Your task to perform on an android device: Is it going to rain today? Image 0: 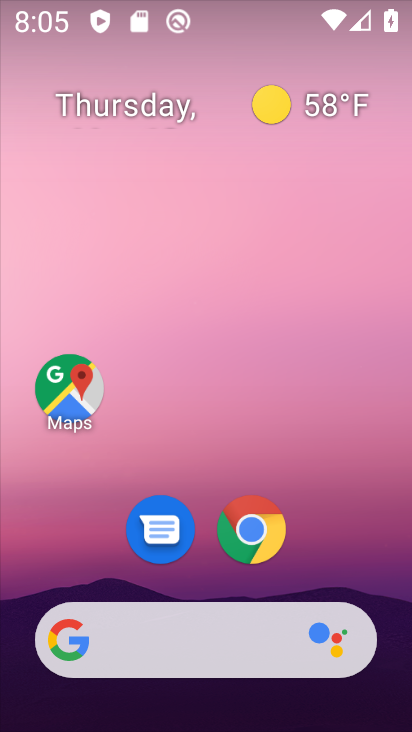
Step 0: drag from (197, 577) to (241, 90)
Your task to perform on an android device: Is it going to rain today? Image 1: 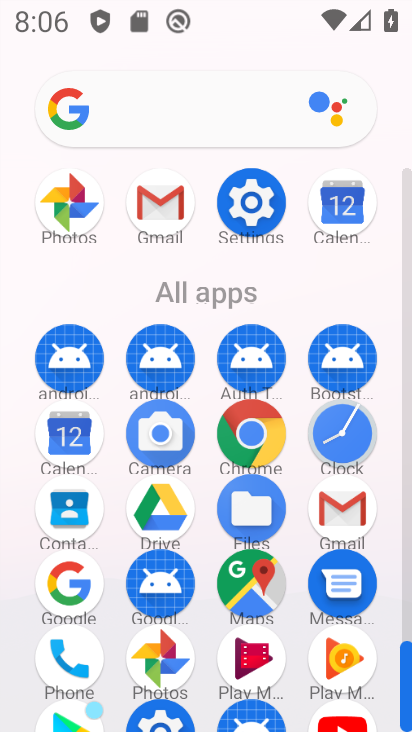
Step 1: click (64, 587)
Your task to perform on an android device: Is it going to rain today? Image 2: 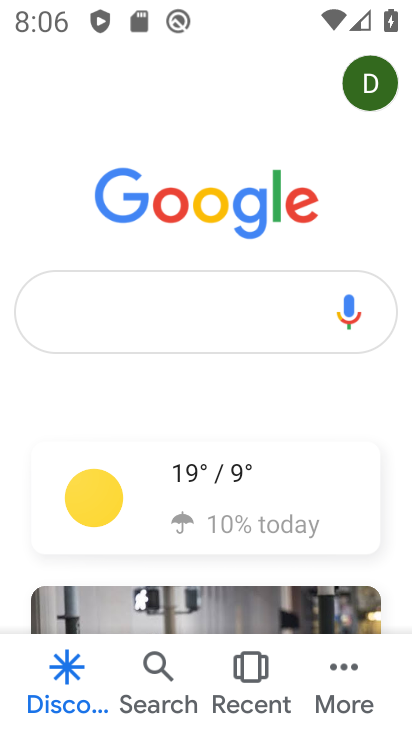
Step 2: type "is it going to rain today"
Your task to perform on an android device: Is it going to rain today? Image 3: 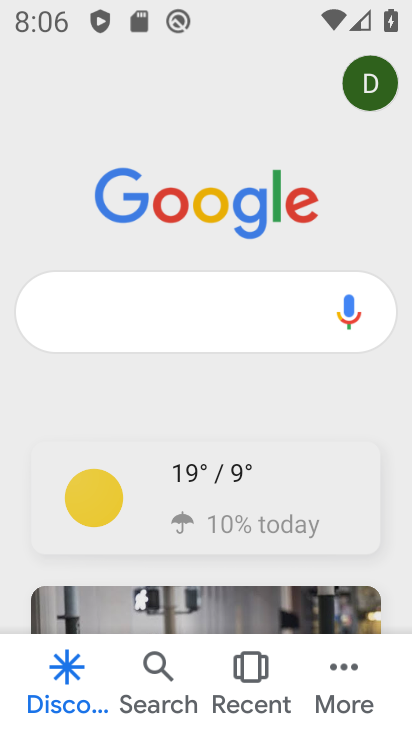
Step 3: click (132, 324)
Your task to perform on an android device: Is it going to rain today? Image 4: 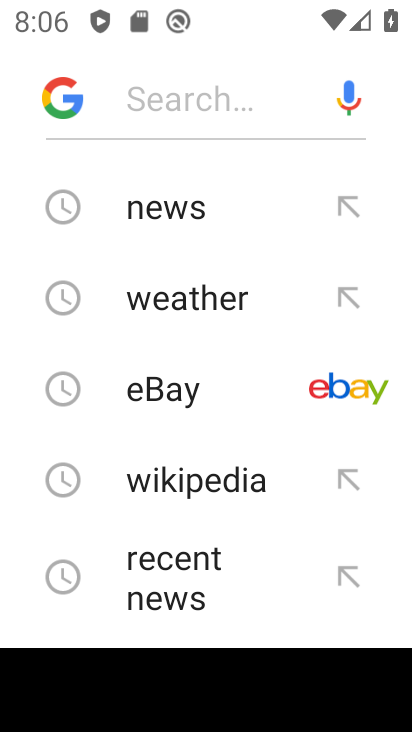
Step 4: type "is it going to rain today"
Your task to perform on an android device: Is it going to rain today? Image 5: 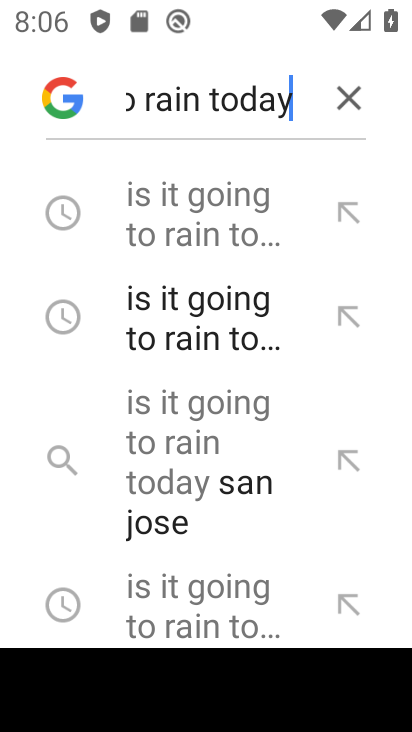
Step 5: click (173, 205)
Your task to perform on an android device: Is it going to rain today? Image 6: 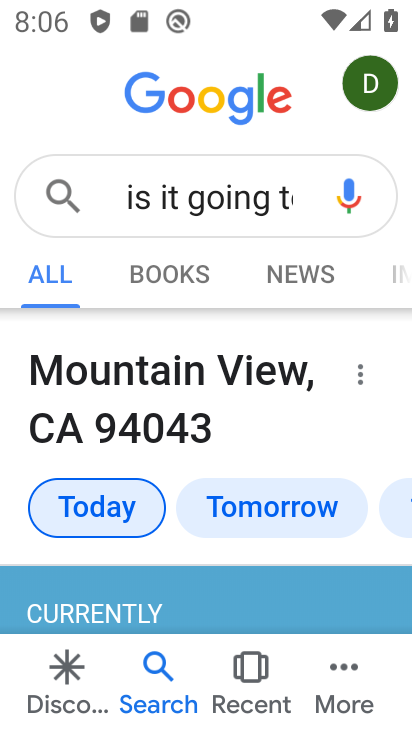
Step 6: task complete